Your task to perform on an android device: turn on wifi Image 0: 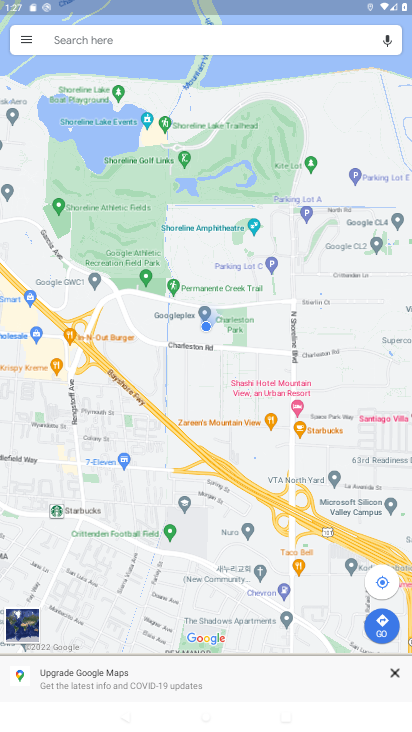
Step 0: press home button
Your task to perform on an android device: turn on wifi Image 1: 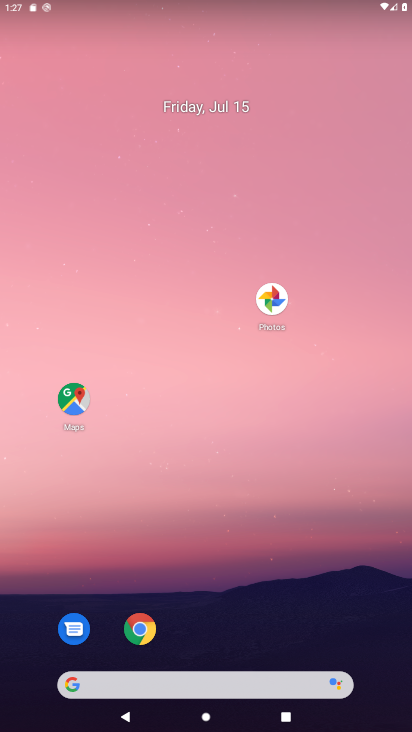
Step 1: drag from (243, 505) to (239, 253)
Your task to perform on an android device: turn on wifi Image 2: 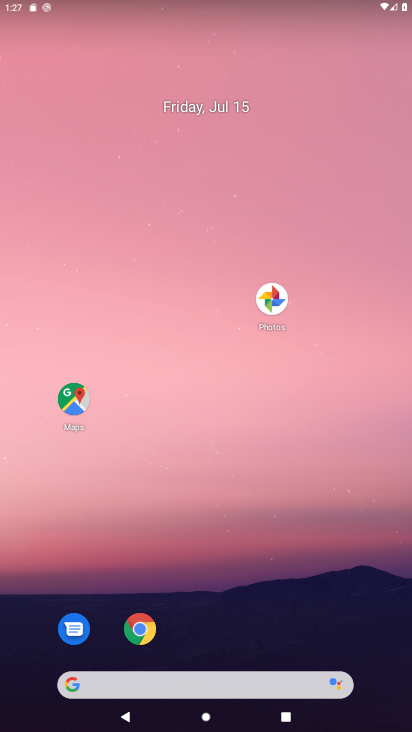
Step 2: drag from (202, 663) to (197, 330)
Your task to perform on an android device: turn on wifi Image 3: 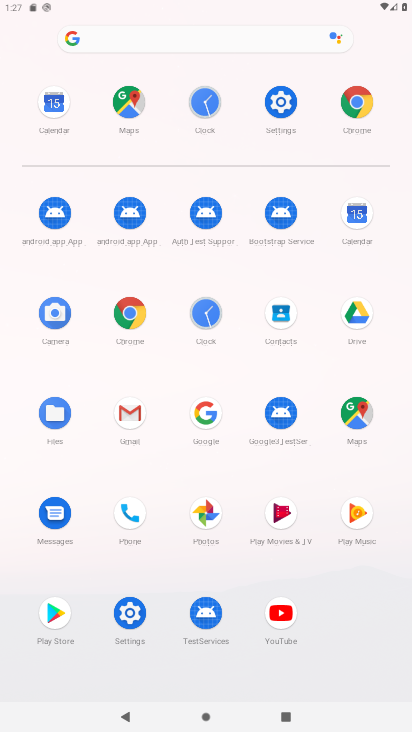
Step 3: click (268, 101)
Your task to perform on an android device: turn on wifi Image 4: 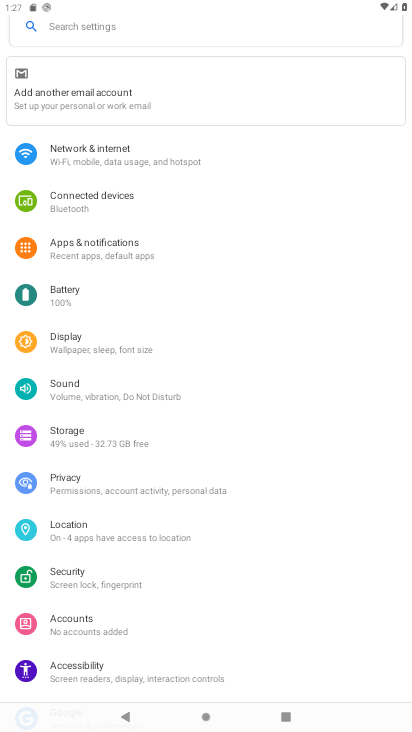
Step 4: click (97, 151)
Your task to perform on an android device: turn on wifi Image 5: 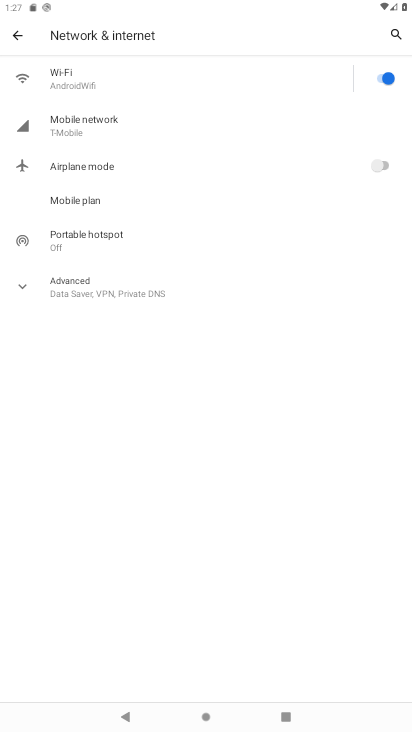
Step 5: task complete